Your task to perform on an android device: Where can I buy a nice beach blanket? Image 0: 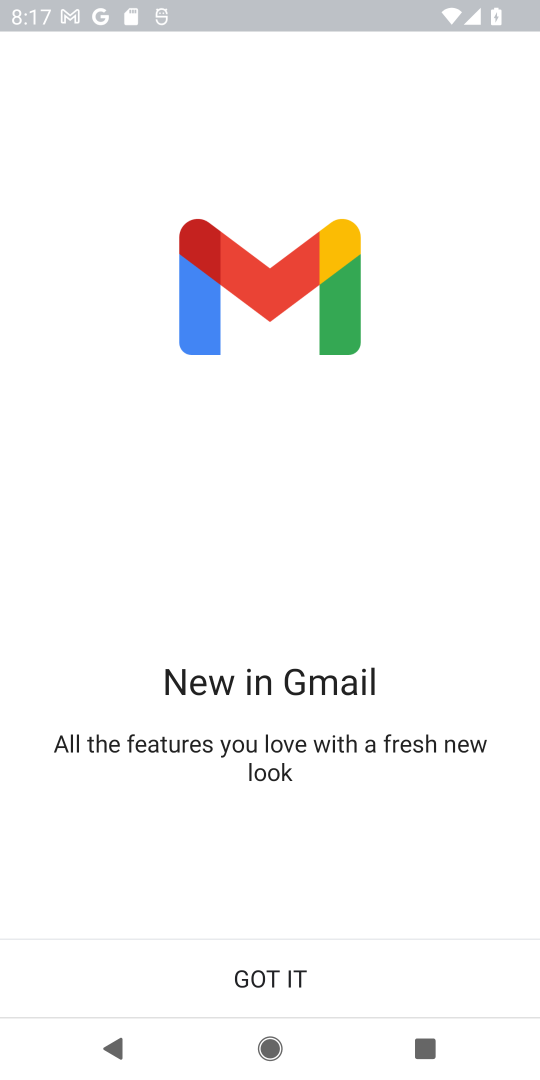
Step 0: press home button
Your task to perform on an android device: Where can I buy a nice beach blanket? Image 1: 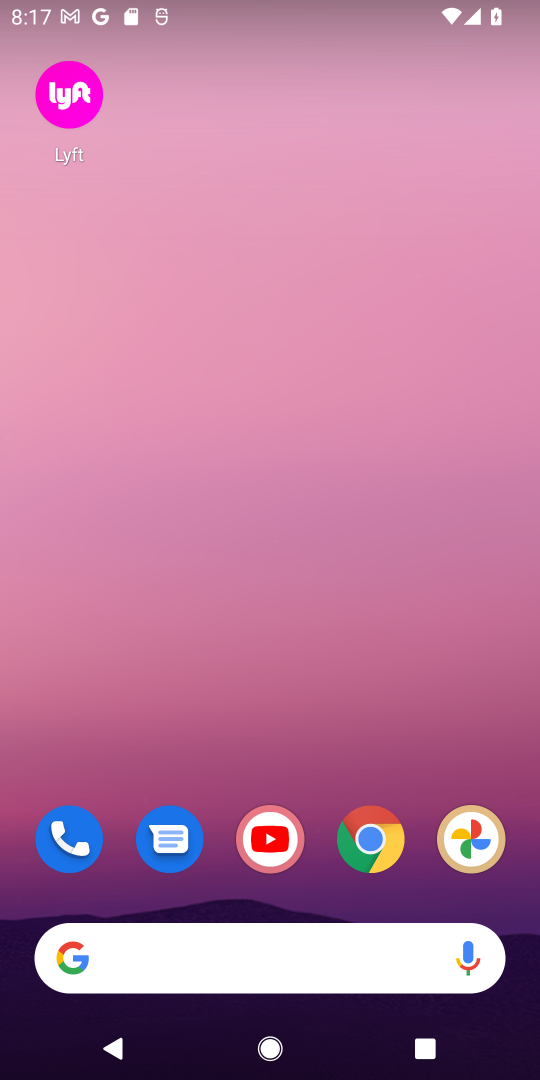
Step 1: click (374, 866)
Your task to perform on an android device: Where can I buy a nice beach blanket? Image 2: 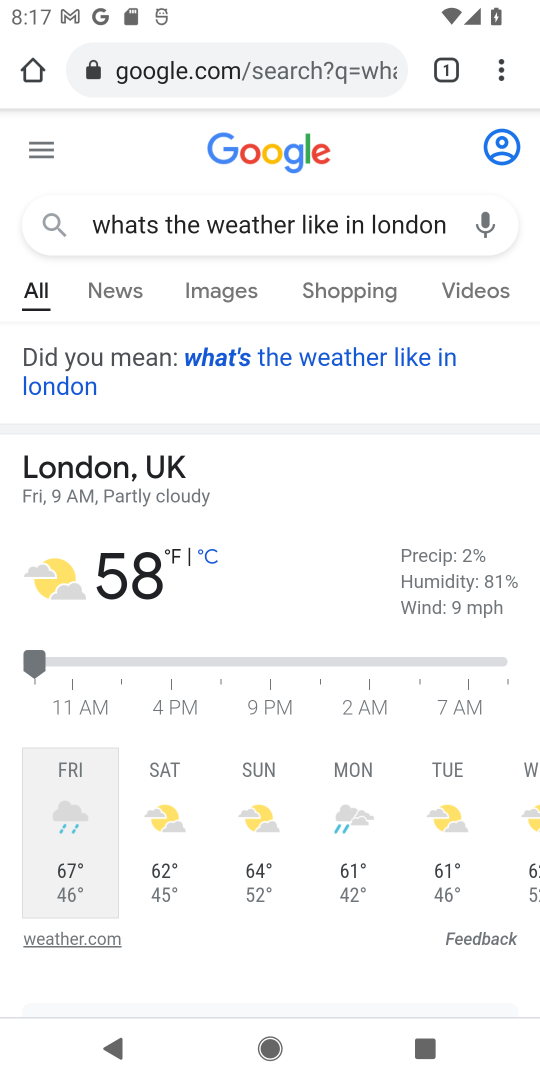
Step 2: click (305, 69)
Your task to perform on an android device: Where can I buy a nice beach blanket? Image 3: 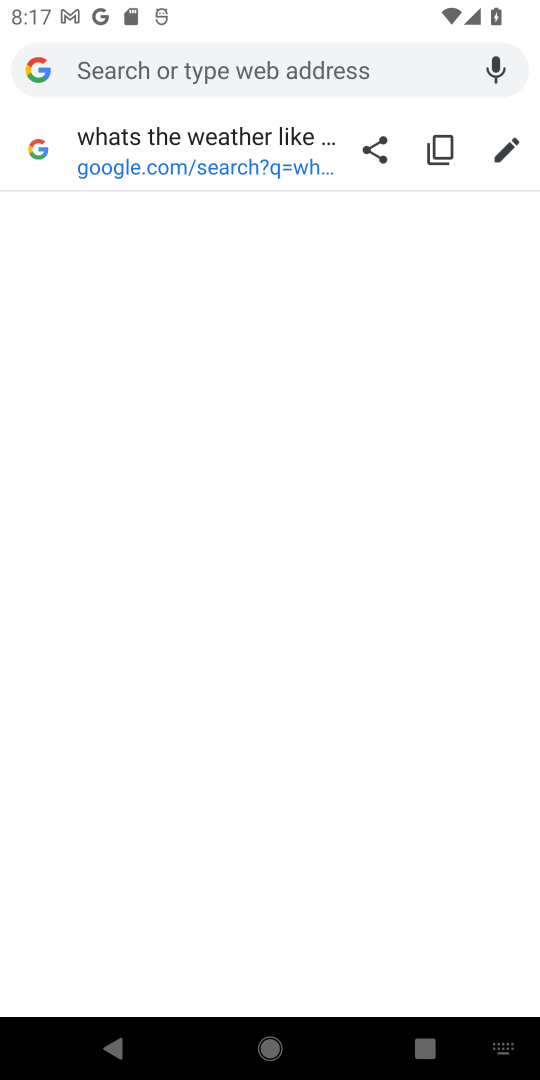
Step 3: type "amazon"
Your task to perform on an android device: Where can I buy a nice beach blanket? Image 4: 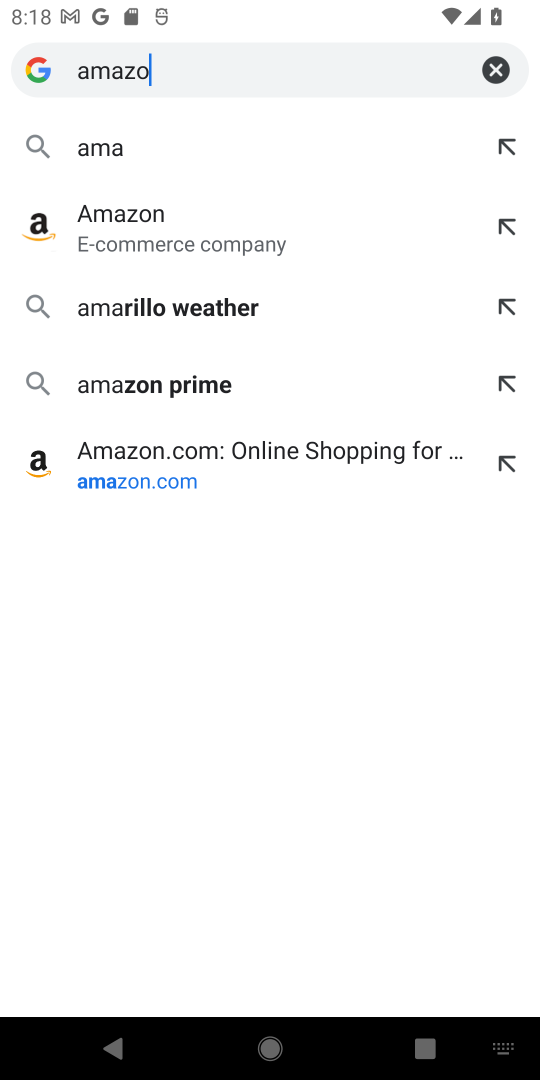
Step 4: type ""
Your task to perform on an android device: Where can I buy a nice beach blanket? Image 5: 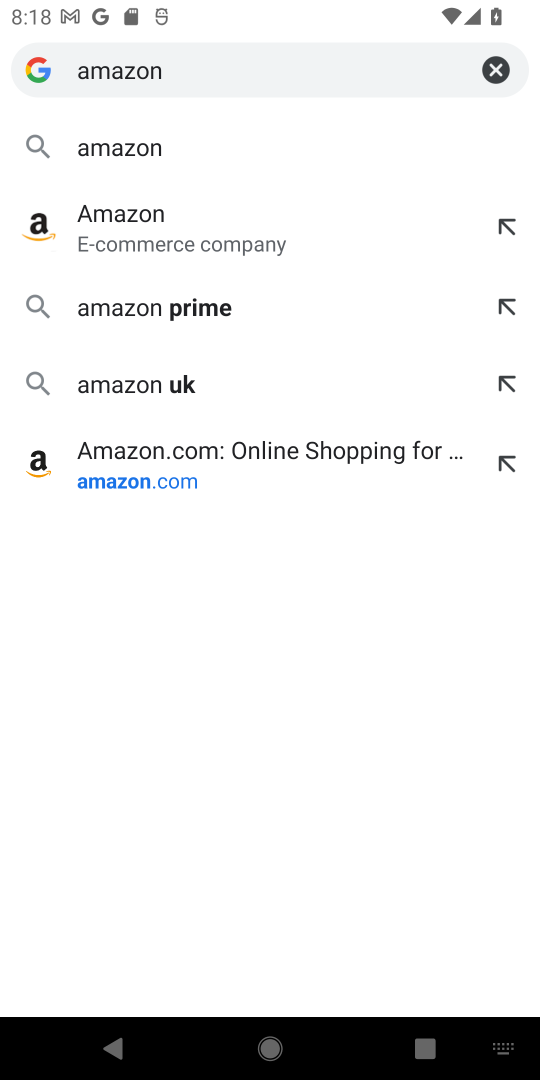
Step 5: click (137, 229)
Your task to perform on an android device: Where can I buy a nice beach blanket? Image 6: 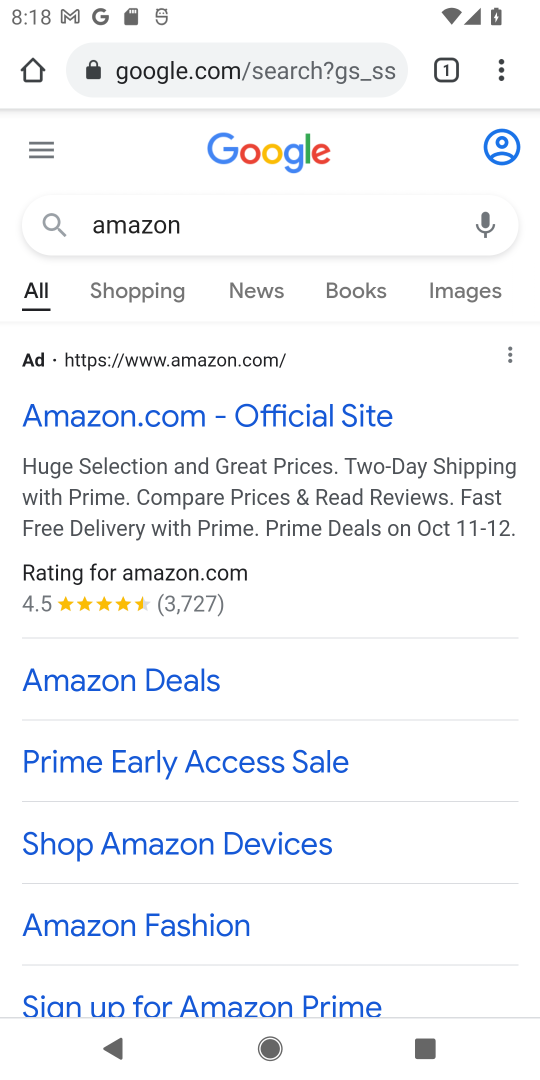
Step 6: click (173, 416)
Your task to perform on an android device: Where can I buy a nice beach blanket? Image 7: 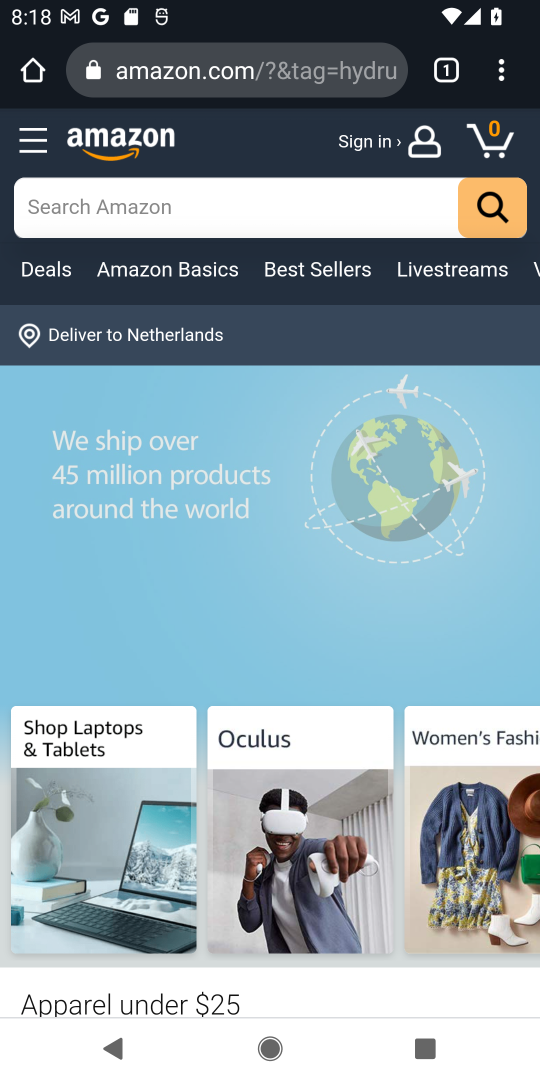
Step 7: click (242, 203)
Your task to perform on an android device: Where can I buy a nice beach blanket? Image 8: 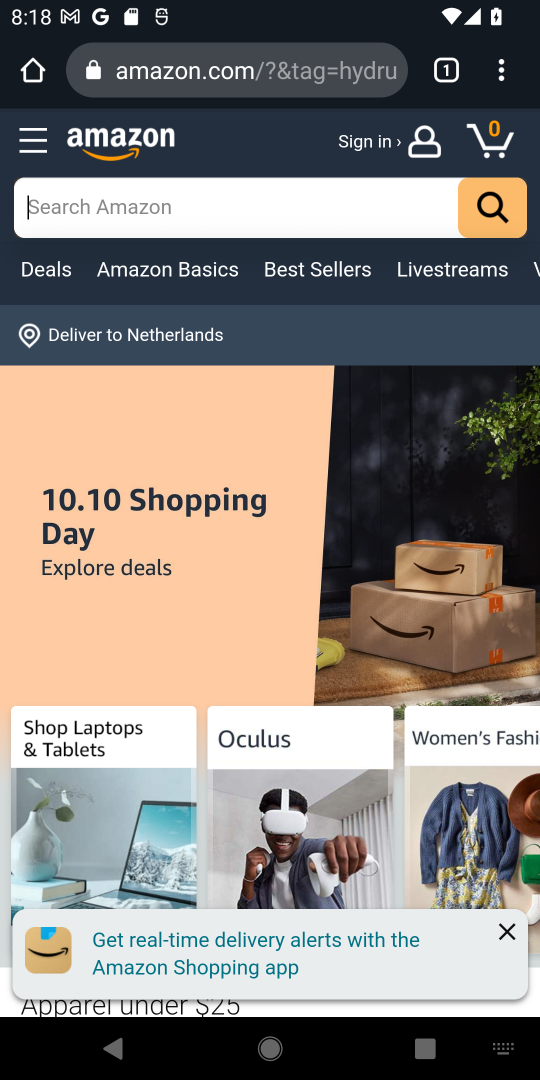
Step 8: type "nice beach blanket"
Your task to perform on an android device: Where can I buy a nice beach blanket? Image 9: 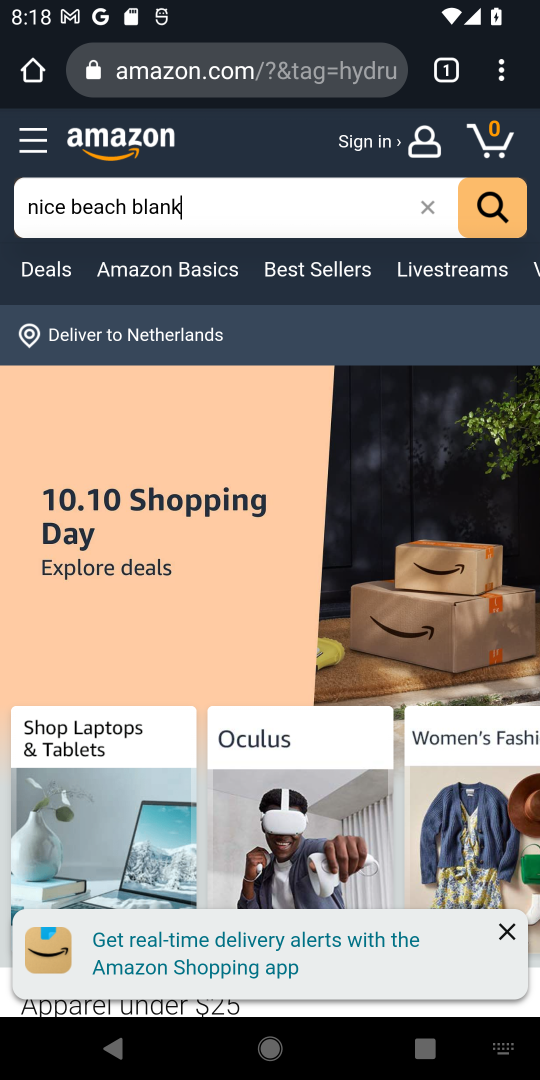
Step 9: type ""
Your task to perform on an android device: Where can I buy a nice beach blanket? Image 10: 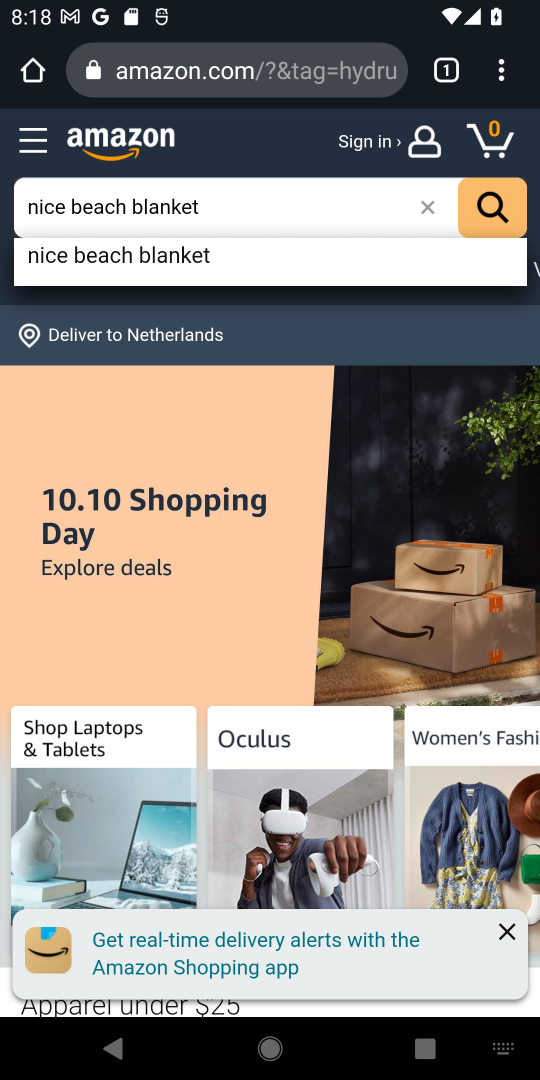
Step 10: click (156, 250)
Your task to perform on an android device: Where can I buy a nice beach blanket? Image 11: 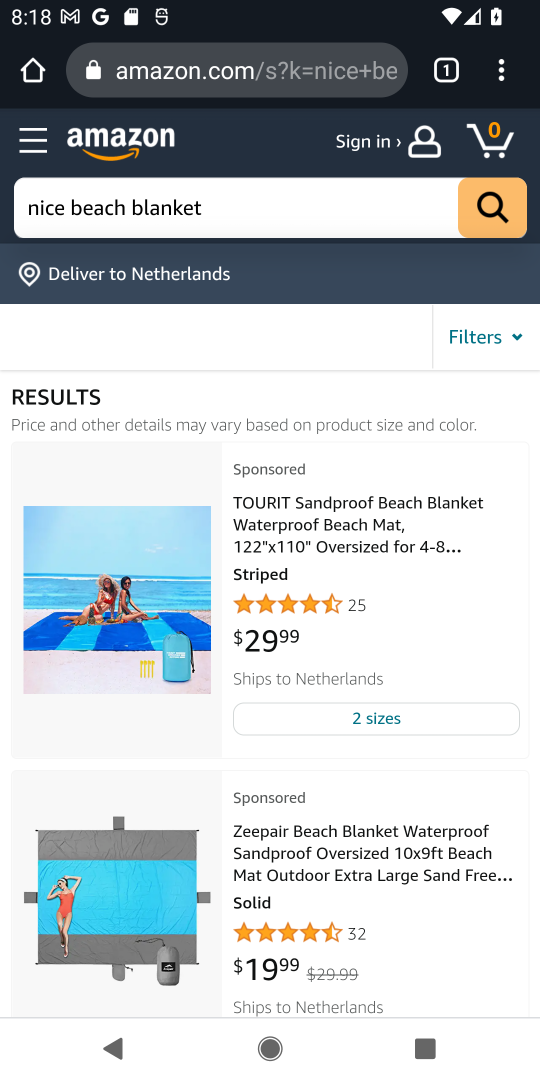
Step 11: drag from (377, 939) to (467, 146)
Your task to perform on an android device: Where can I buy a nice beach blanket? Image 12: 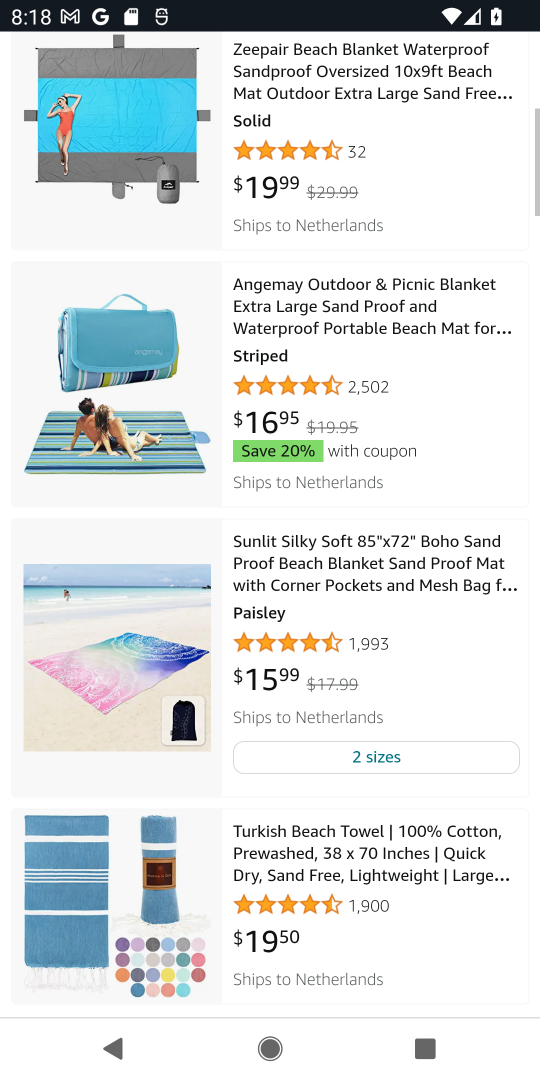
Step 12: drag from (333, 867) to (365, 295)
Your task to perform on an android device: Where can I buy a nice beach blanket? Image 13: 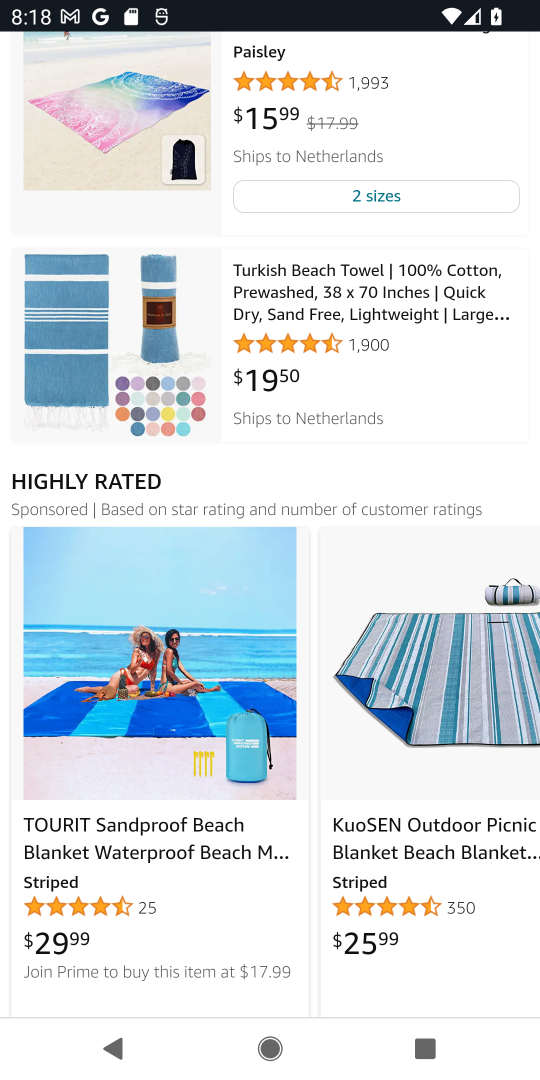
Step 13: drag from (244, 859) to (316, 313)
Your task to perform on an android device: Where can I buy a nice beach blanket? Image 14: 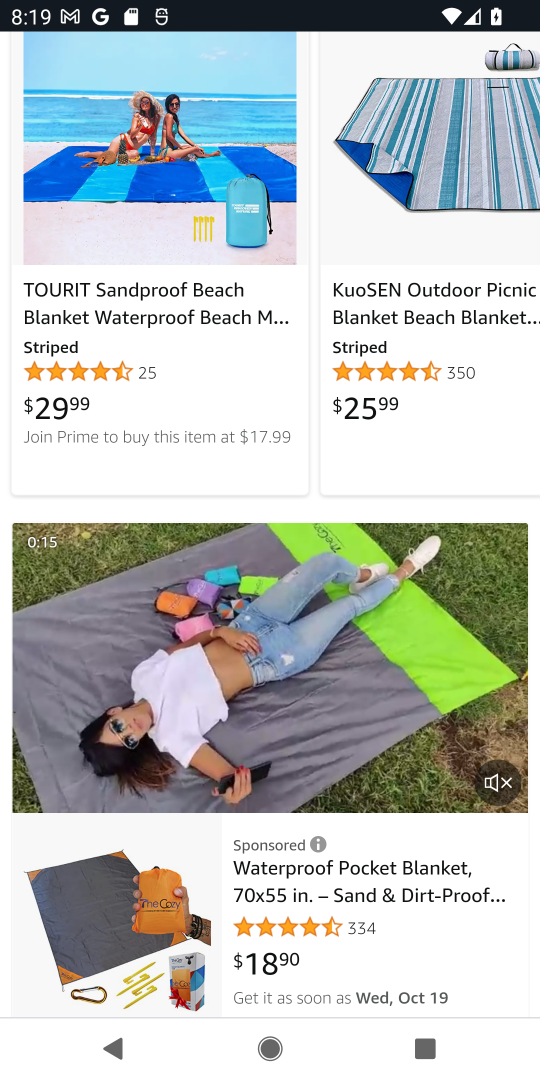
Step 14: drag from (276, 874) to (364, 318)
Your task to perform on an android device: Where can I buy a nice beach blanket? Image 15: 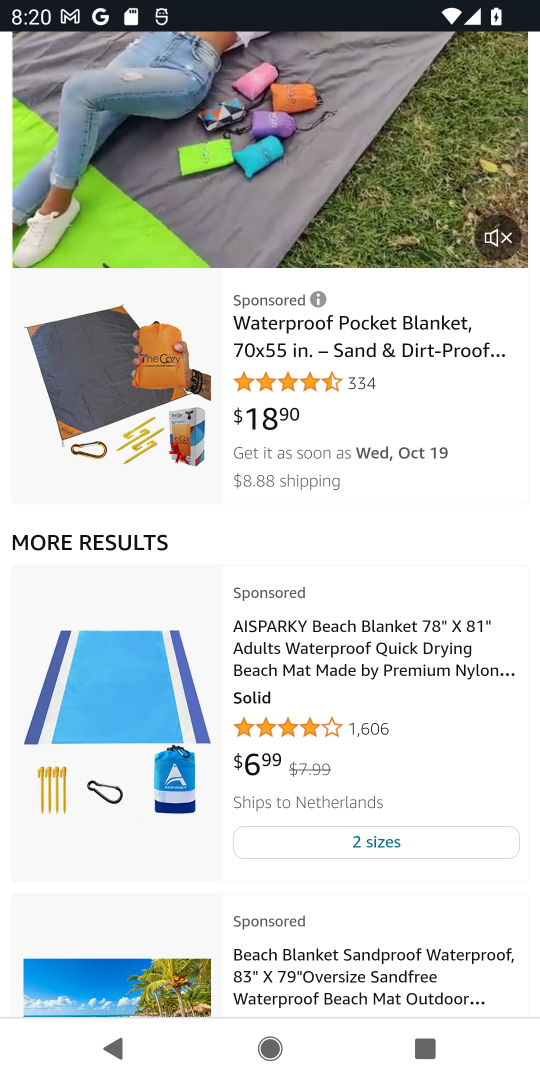
Step 15: drag from (512, 774) to (512, 311)
Your task to perform on an android device: Where can I buy a nice beach blanket? Image 16: 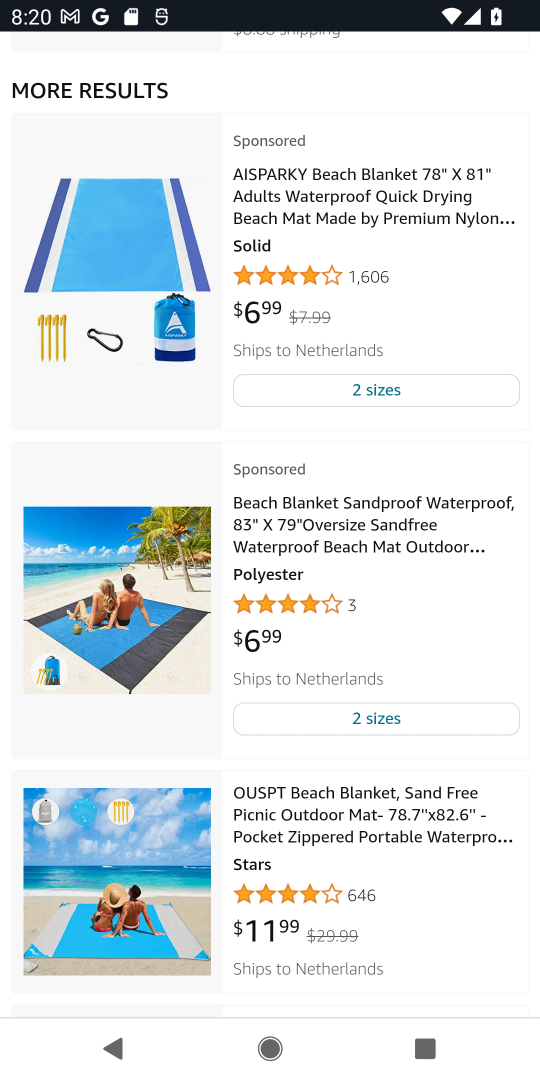
Step 16: click (126, 613)
Your task to perform on an android device: Where can I buy a nice beach blanket? Image 17: 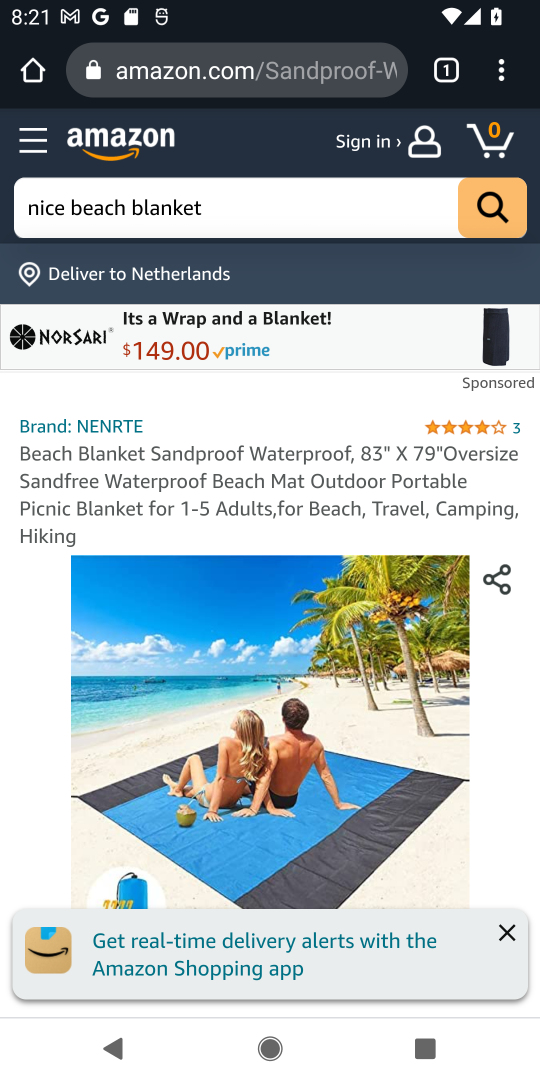
Step 17: task complete